Your task to perform on an android device: delete the emails in spam in the gmail app Image 0: 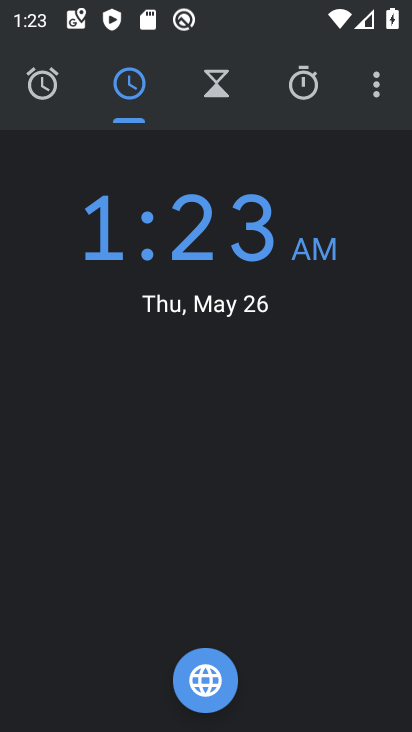
Step 0: press home button
Your task to perform on an android device: delete the emails in spam in the gmail app Image 1: 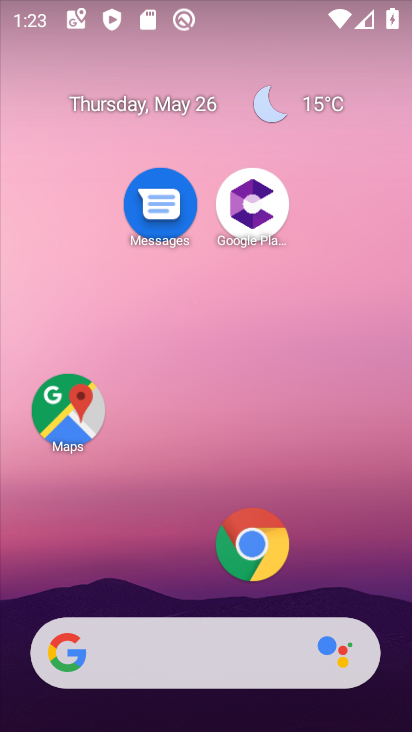
Step 1: drag from (207, 567) to (241, 330)
Your task to perform on an android device: delete the emails in spam in the gmail app Image 2: 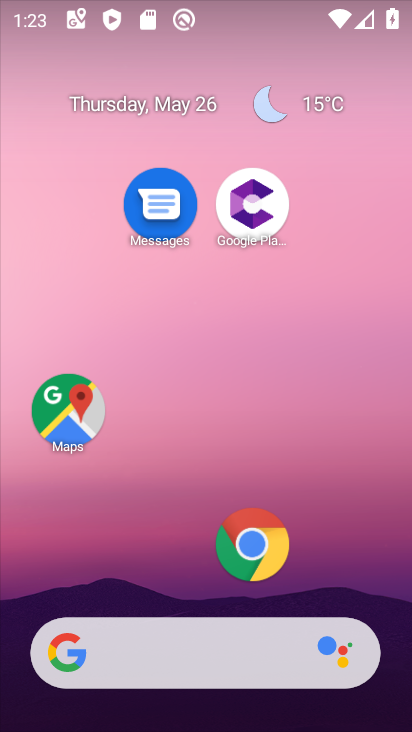
Step 2: drag from (144, 603) to (201, 112)
Your task to perform on an android device: delete the emails in spam in the gmail app Image 3: 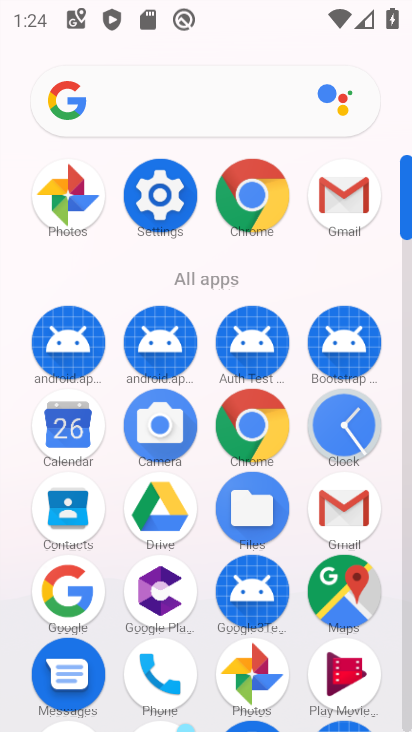
Step 3: click (342, 205)
Your task to perform on an android device: delete the emails in spam in the gmail app Image 4: 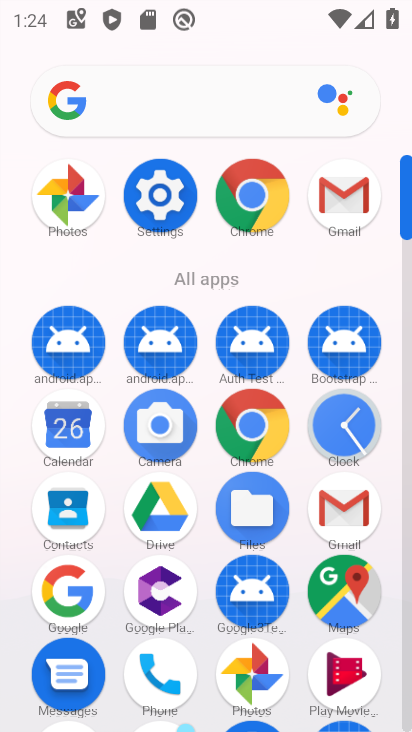
Step 4: click (342, 206)
Your task to perform on an android device: delete the emails in spam in the gmail app Image 5: 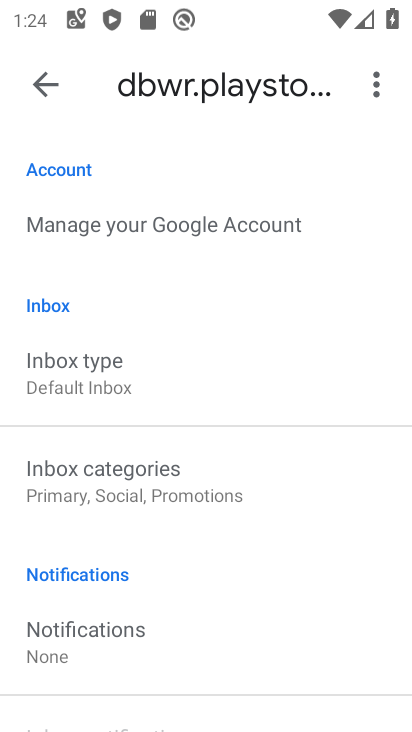
Step 5: click (54, 90)
Your task to perform on an android device: delete the emails in spam in the gmail app Image 6: 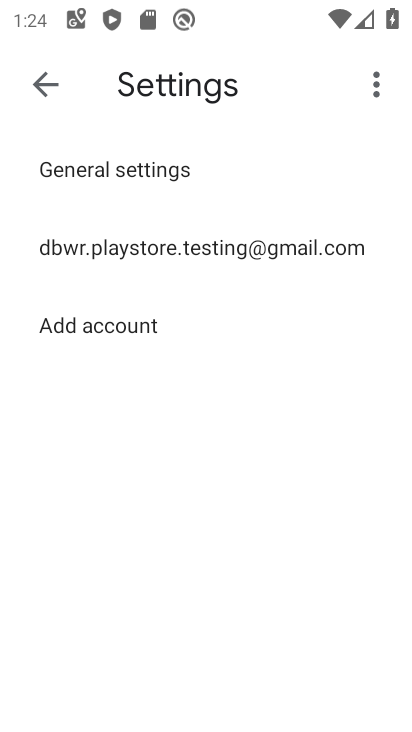
Step 6: click (39, 115)
Your task to perform on an android device: delete the emails in spam in the gmail app Image 7: 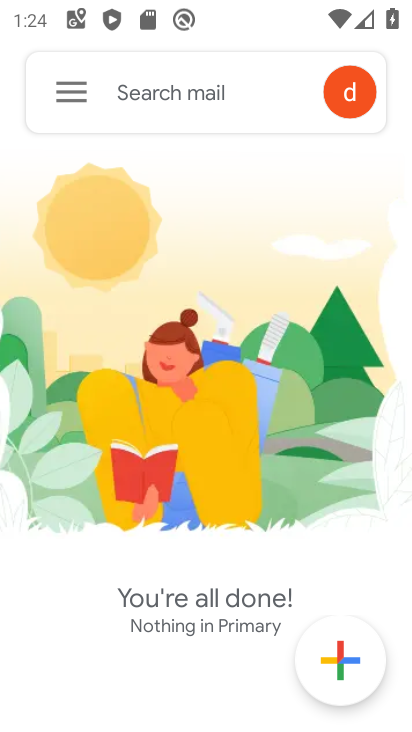
Step 7: click (51, 108)
Your task to perform on an android device: delete the emails in spam in the gmail app Image 8: 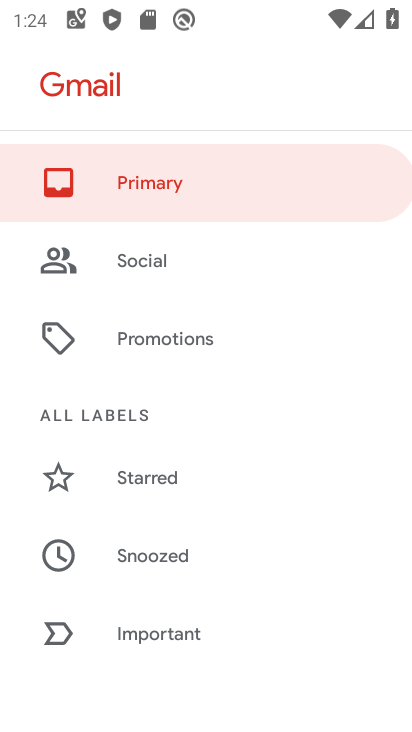
Step 8: drag from (99, 610) to (162, 110)
Your task to perform on an android device: delete the emails in spam in the gmail app Image 9: 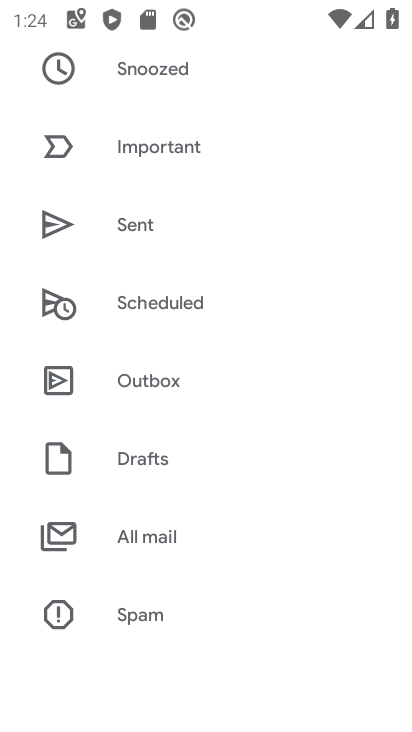
Step 9: click (81, 581)
Your task to perform on an android device: delete the emails in spam in the gmail app Image 10: 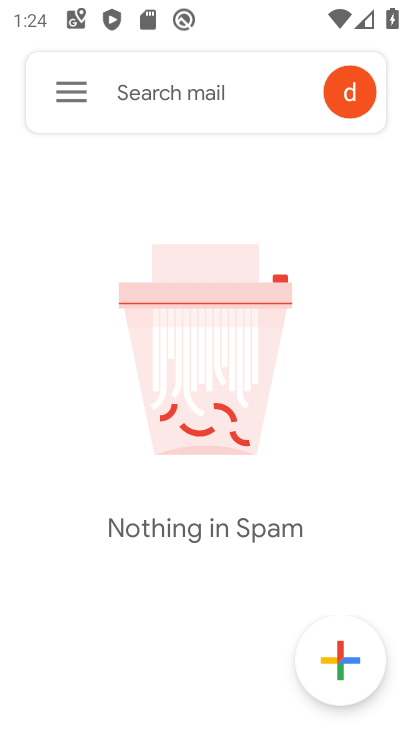
Step 10: task complete